Your task to perform on an android device: What's the weather going to be this weekend? Image 0: 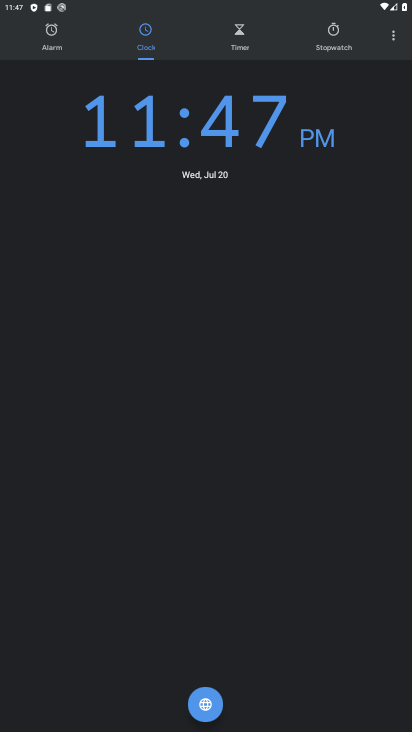
Step 0: press home button
Your task to perform on an android device: What's the weather going to be this weekend? Image 1: 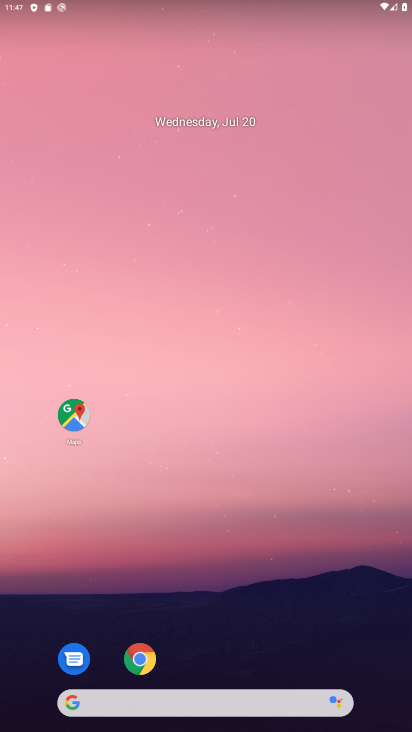
Step 1: drag from (292, 551) to (318, 50)
Your task to perform on an android device: What's the weather going to be this weekend? Image 2: 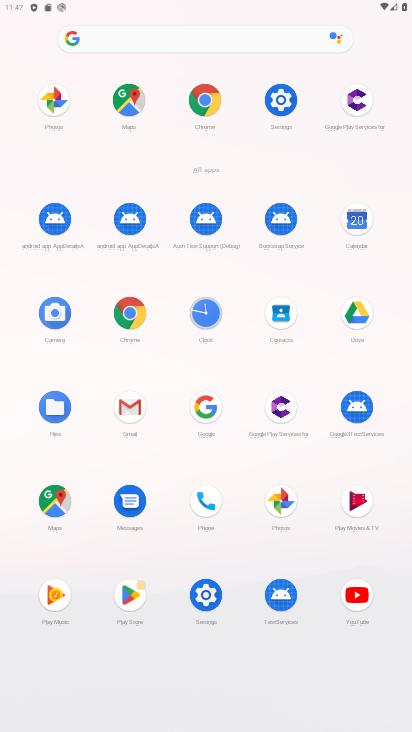
Step 2: click (207, 103)
Your task to perform on an android device: What's the weather going to be this weekend? Image 3: 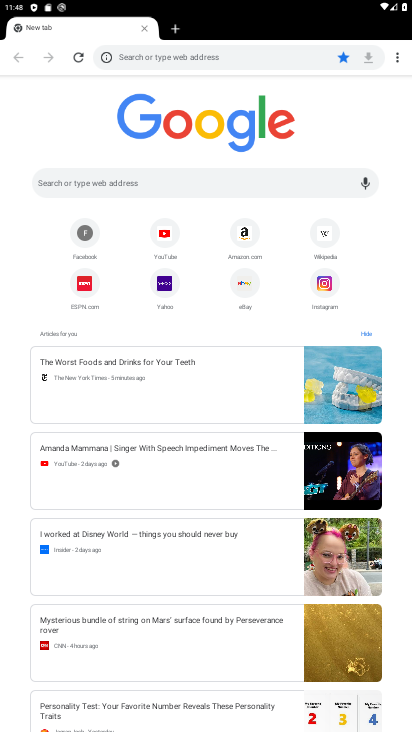
Step 3: click (213, 177)
Your task to perform on an android device: What's the weather going to be this weekend? Image 4: 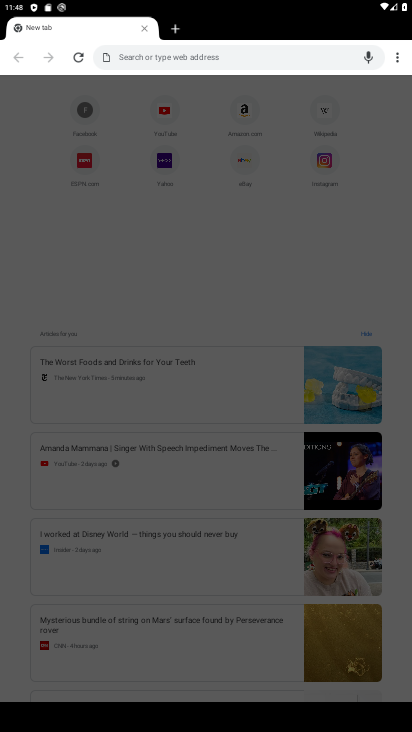
Step 4: type "weather"
Your task to perform on an android device: What's the weather going to be this weekend? Image 5: 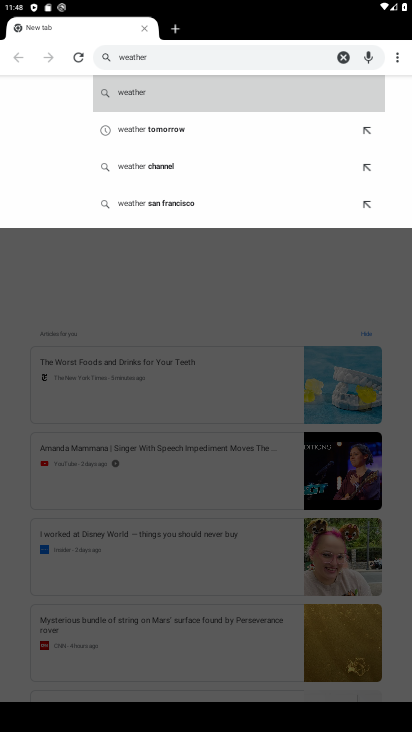
Step 5: click (163, 86)
Your task to perform on an android device: What's the weather going to be this weekend? Image 6: 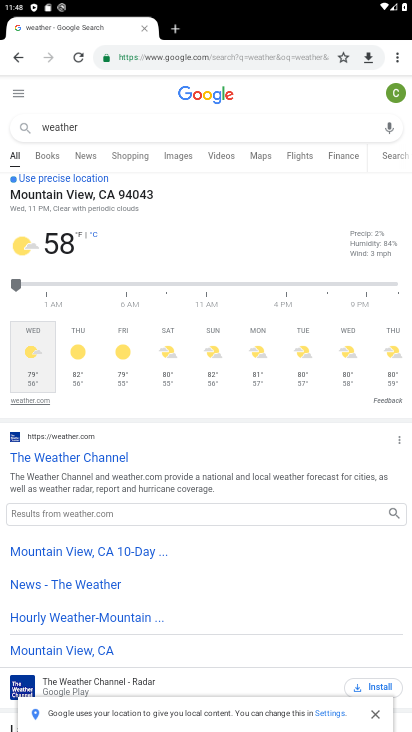
Step 6: click (173, 346)
Your task to perform on an android device: What's the weather going to be this weekend? Image 7: 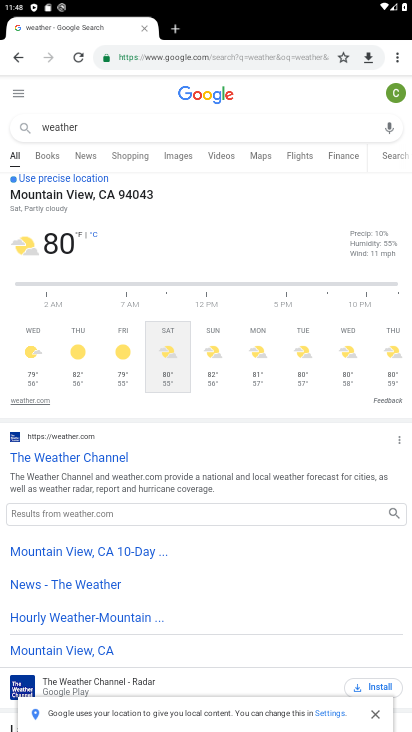
Step 7: task complete